Your task to perform on an android device: open sync settings in chrome Image 0: 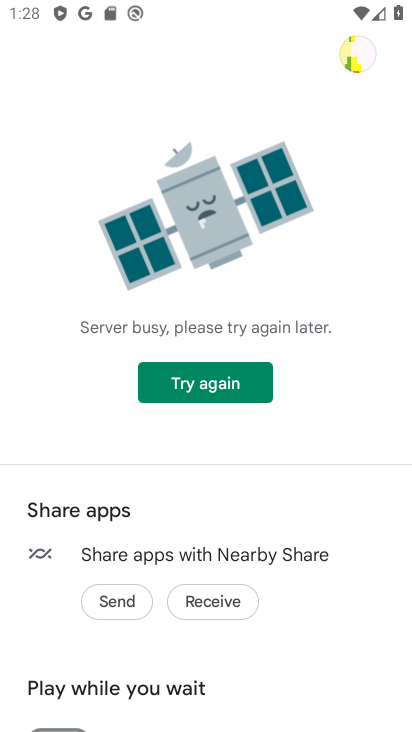
Step 0: press home button
Your task to perform on an android device: open sync settings in chrome Image 1: 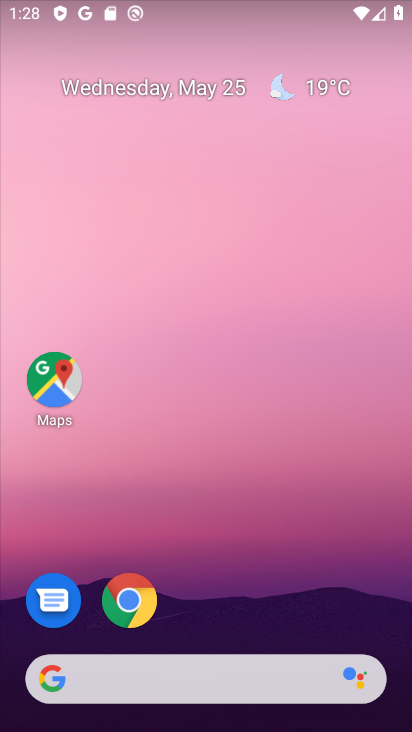
Step 1: click (130, 615)
Your task to perform on an android device: open sync settings in chrome Image 2: 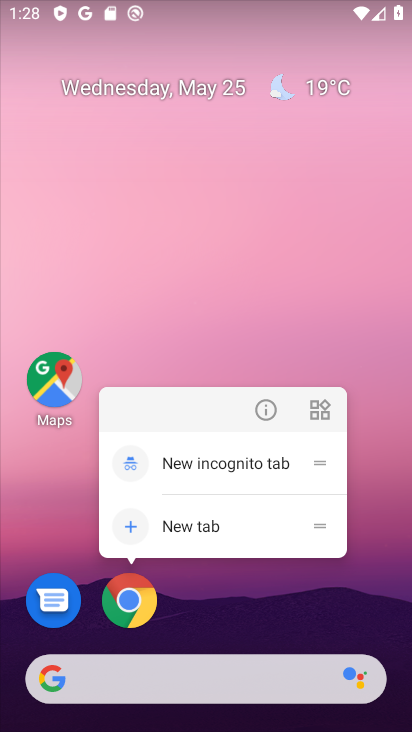
Step 2: click (131, 612)
Your task to perform on an android device: open sync settings in chrome Image 3: 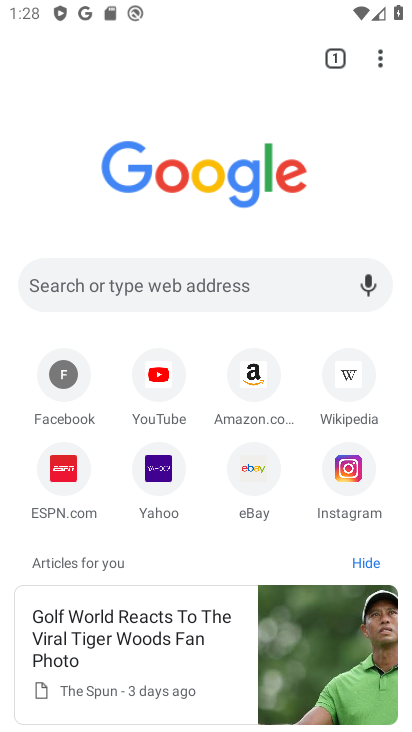
Step 3: drag from (382, 64) to (266, 495)
Your task to perform on an android device: open sync settings in chrome Image 4: 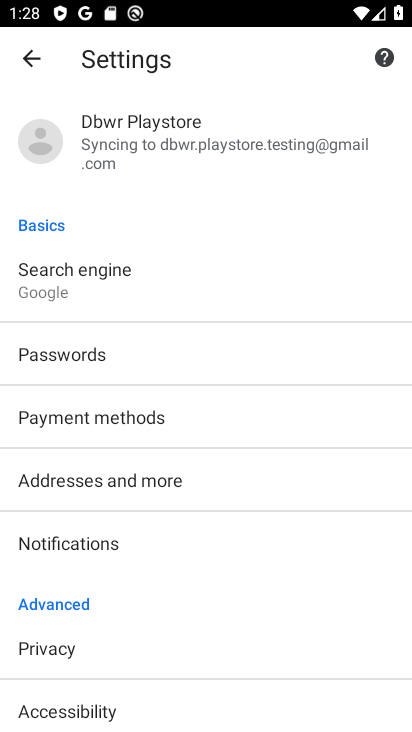
Step 4: click (229, 170)
Your task to perform on an android device: open sync settings in chrome Image 5: 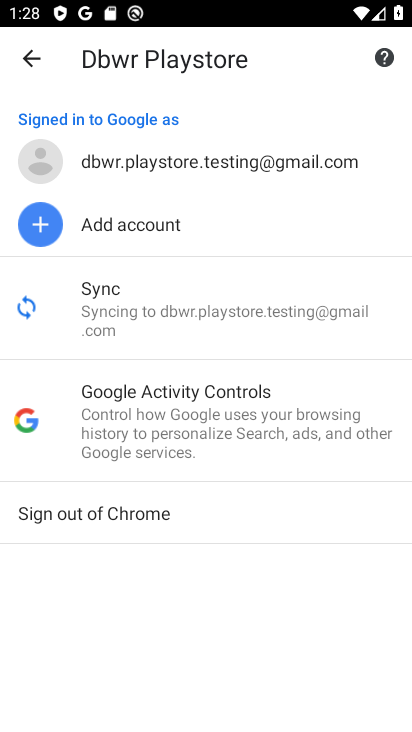
Step 5: click (202, 303)
Your task to perform on an android device: open sync settings in chrome Image 6: 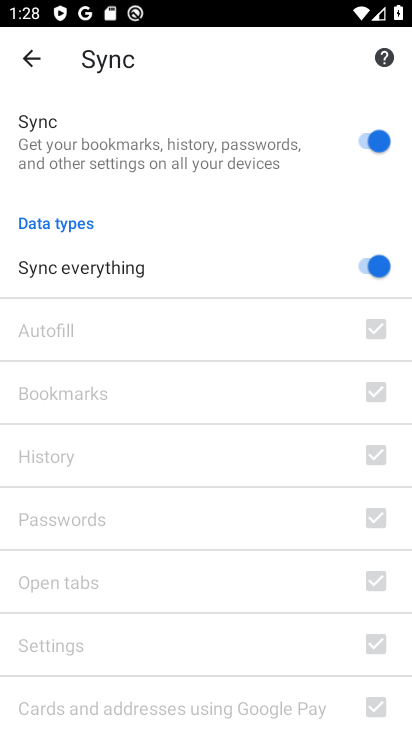
Step 6: task complete